Your task to perform on an android device: all mails in gmail Image 0: 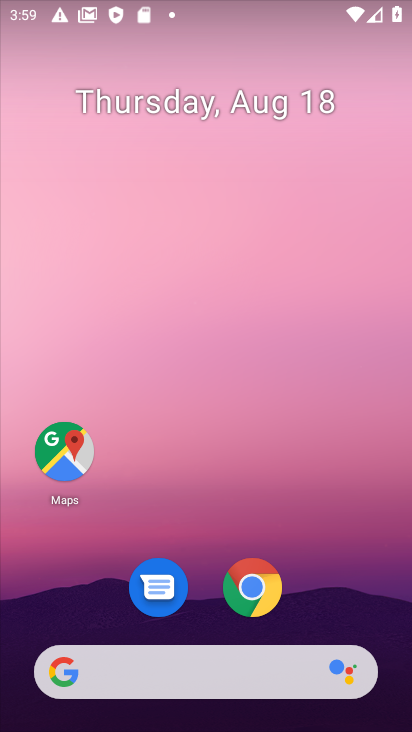
Step 0: drag from (327, 594) to (265, 7)
Your task to perform on an android device: all mails in gmail Image 1: 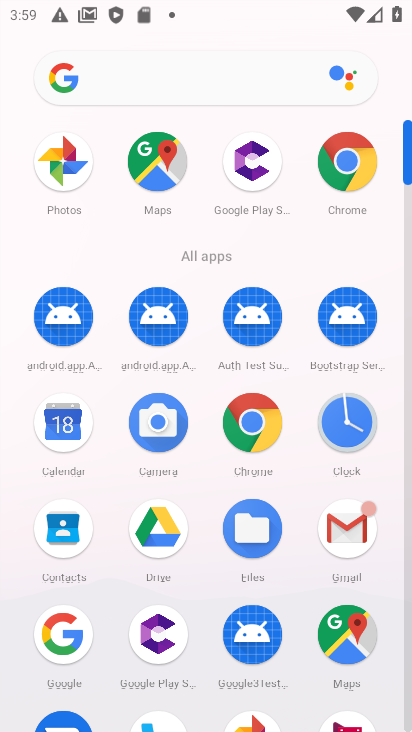
Step 1: click (352, 521)
Your task to perform on an android device: all mails in gmail Image 2: 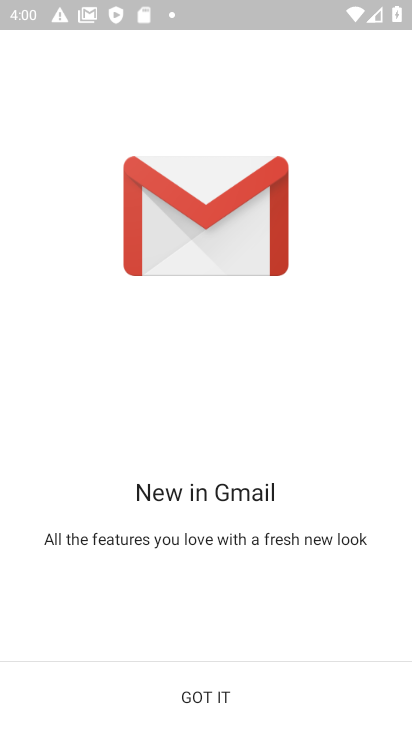
Step 2: click (397, 463)
Your task to perform on an android device: all mails in gmail Image 3: 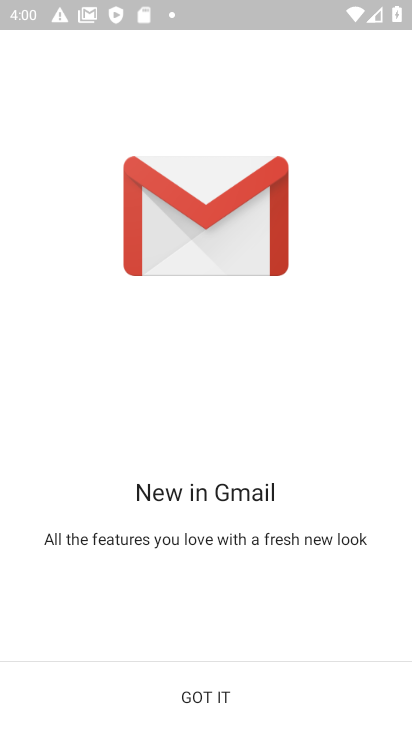
Step 3: drag from (397, 463) to (307, 702)
Your task to perform on an android device: all mails in gmail Image 4: 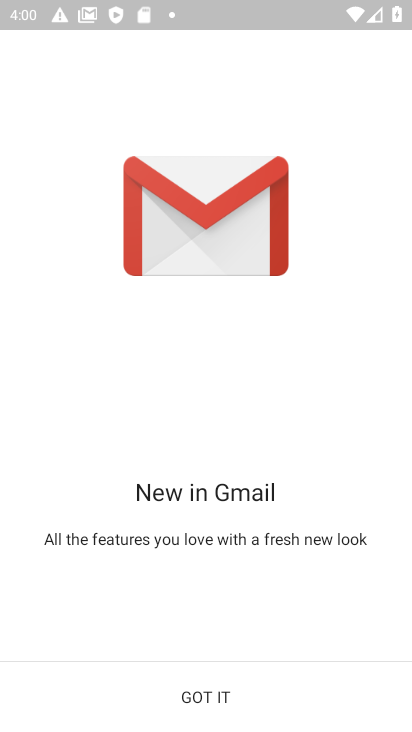
Step 4: click (307, 702)
Your task to perform on an android device: all mails in gmail Image 5: 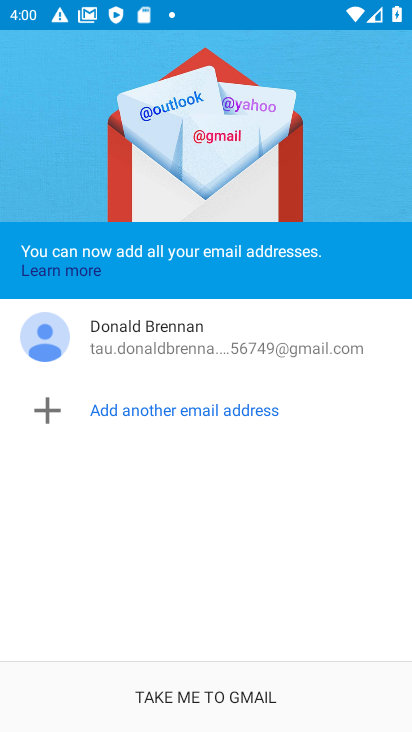
Step 5: click (307, 702)
Your task to perform on an android device: all mails in gmail Image 6: 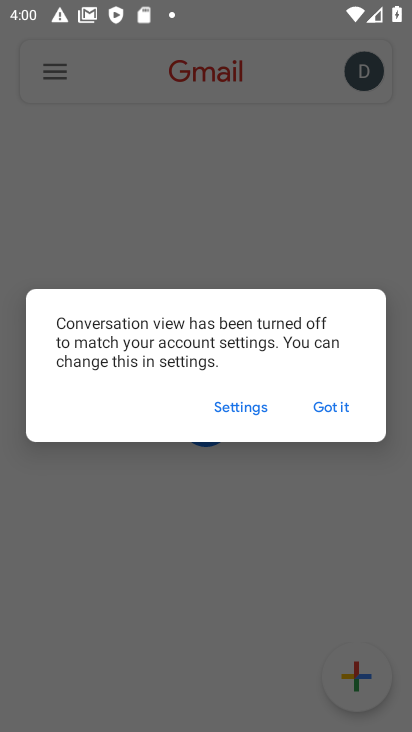
Step 6: click (331, 406)
Your task to perform on an android device: all mails in gmail Image 7: 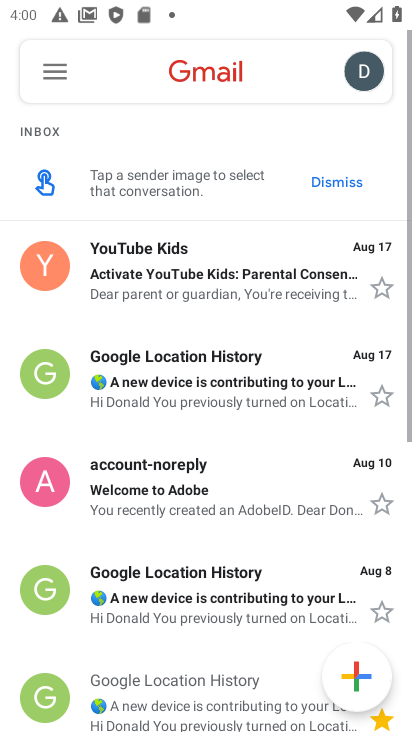
Step 7: click (64, 73)
Your task to perform on an android device: all mails in gmail Image 8: 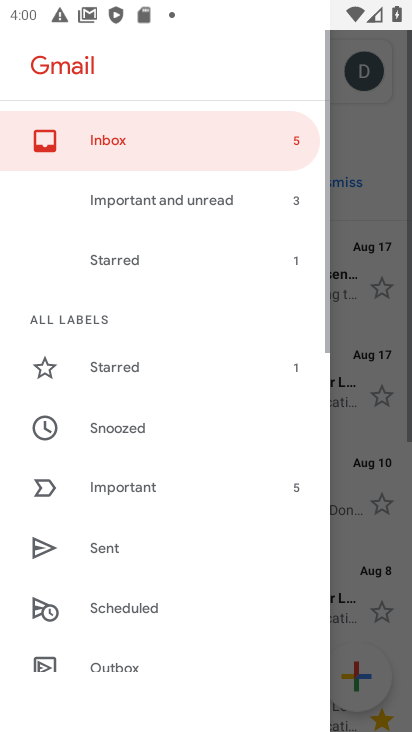
Step 8: drag from (223, 517) to (194, 185)
Your task to perform on an android device: all mails in gmail Image 9: 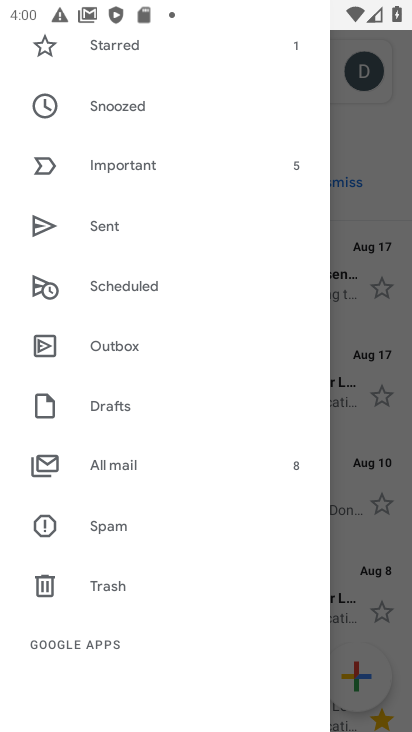
Step 9: click (135, 460)
Your task to perform on an android device: all mails in gmail Image 10: 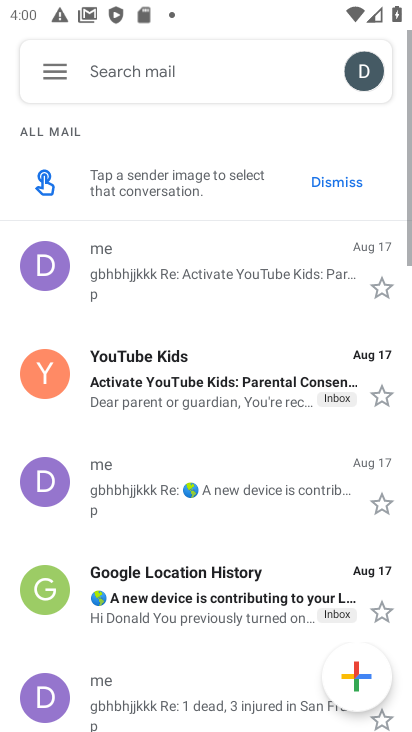
Step 10: task complete